Your task to perform on an android device: clear history in the chrome app Image 0: 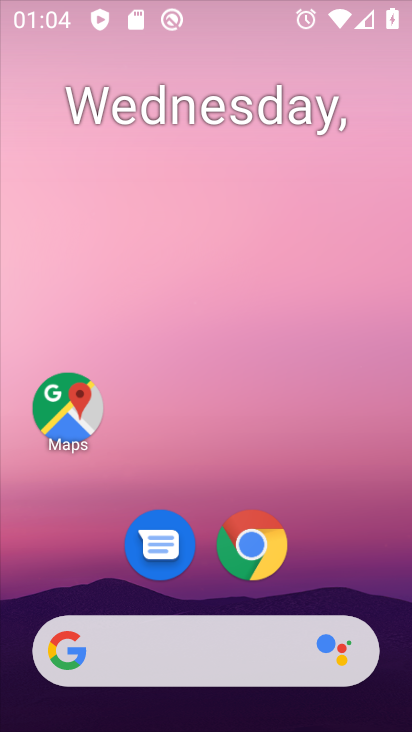
Step 0: drag from (347, 528) to (357, 82)
Your task to perform on an android device: clear history in the chrome app Image 1: 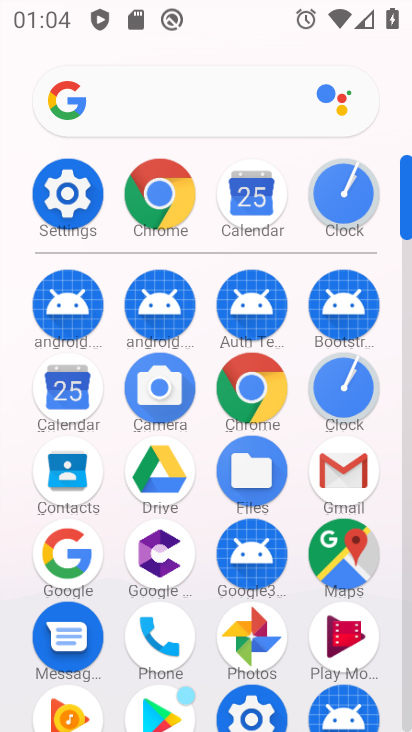
Step 1: click (168, 196)
Your task to perform on an android device: clear history in the chrome app Image 2: 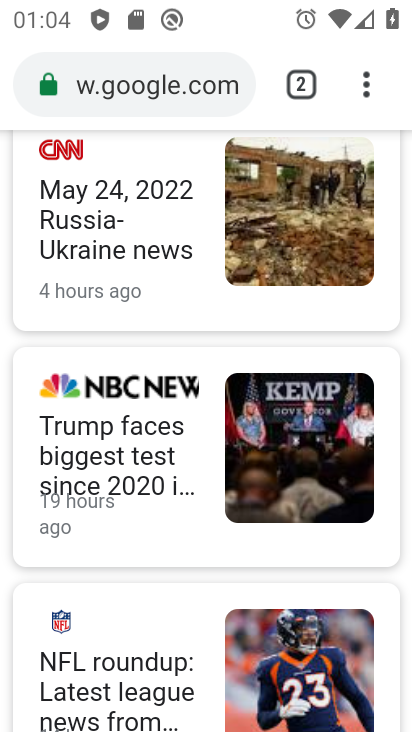
Step 2: drag from (367, 78) to (179, 477)
Your task to perform on an android device: clear history in the chrome app Image 3: 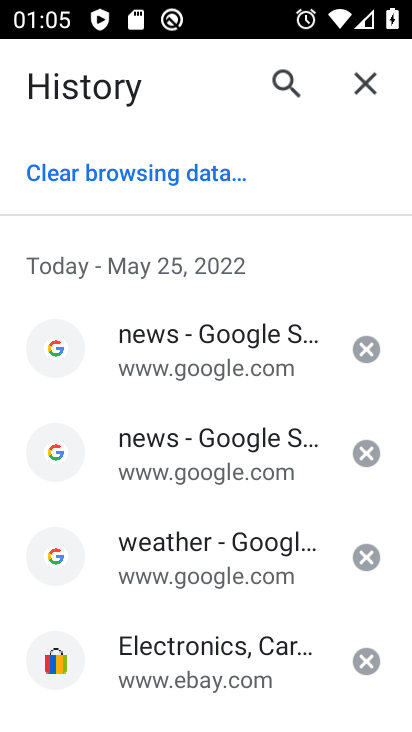
Step 3: click (177, 165)
Your task to perform on an android device: clear history in the chrome app Image 4: 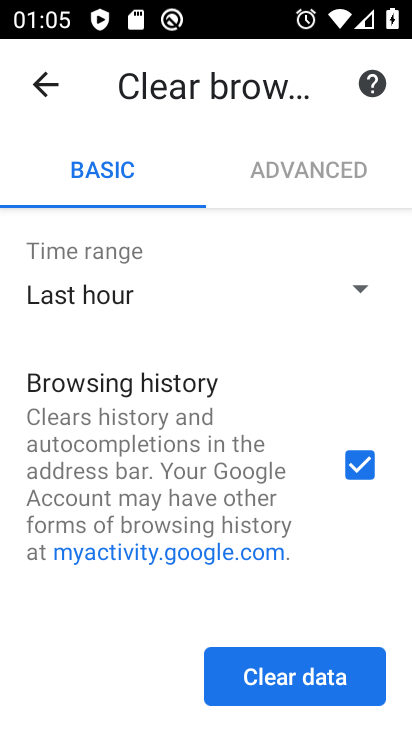
Step 4: click (159, 292)
Your task to perform on an android device: clear history in the chrome app Image 5: 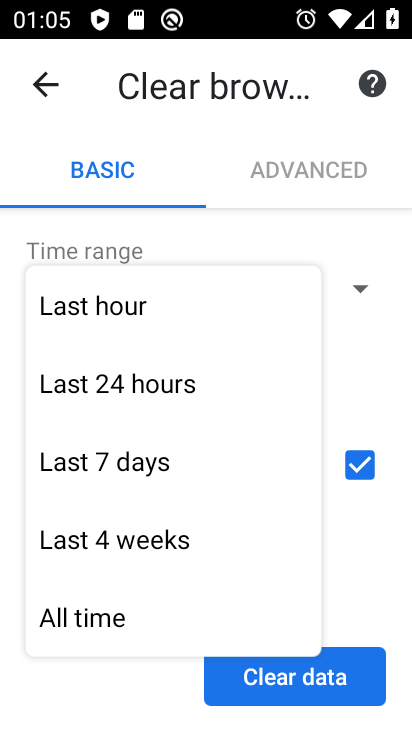
Step 5: click (155, 629)
Your task to perform on an android device: clear history in the chrome app Image 6: 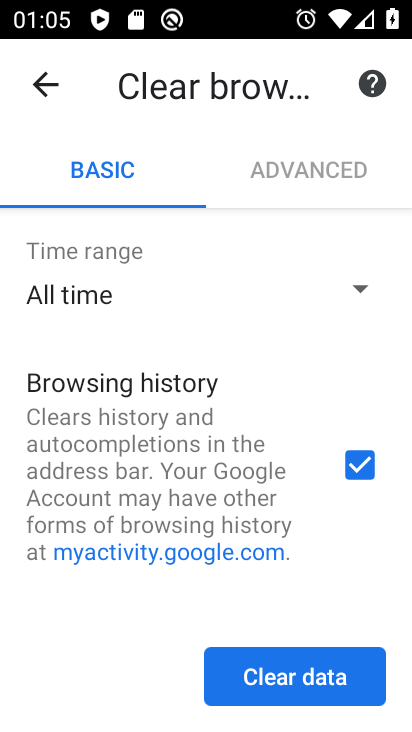
Step 6: click (314, 674)
Your task to perform on an android device: clear history in the chrome app Image 7: 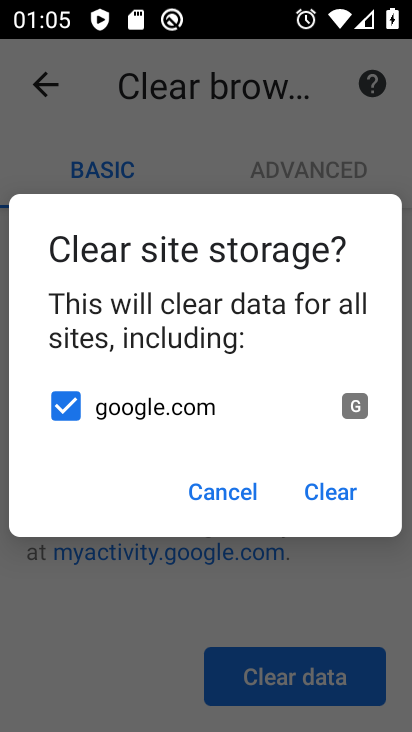
Step 7: click (336, 484)
Your task to perform on an android device: clear history in the chrome app Image 8: 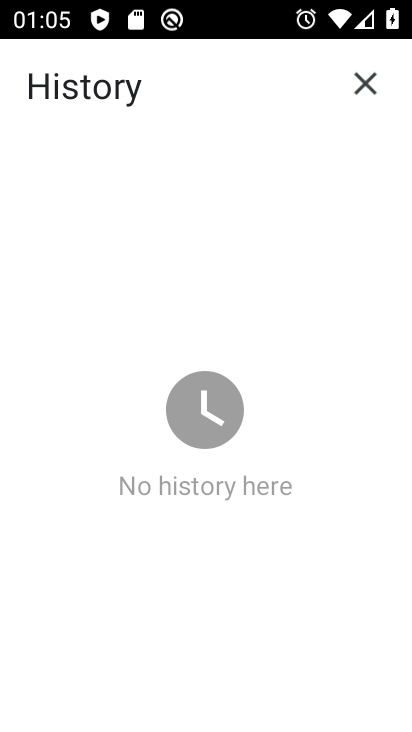
Step 8: task complete